Your task to perform on an android device: find photos in the google photos app Image 0: 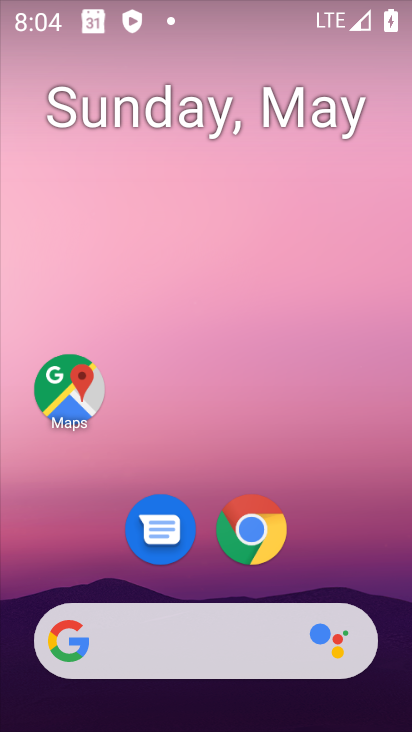
Step 0: drag from (186, 584) to (261, 55)
Your task to perform on an android device: find photos in the google photos app Image 1: 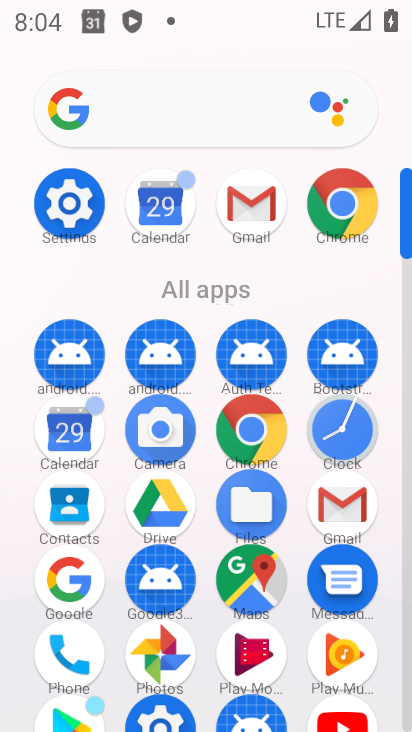
Step 1: click (148, 651)
Your task to perform on an android device: find photos in the google photos app Image 2: 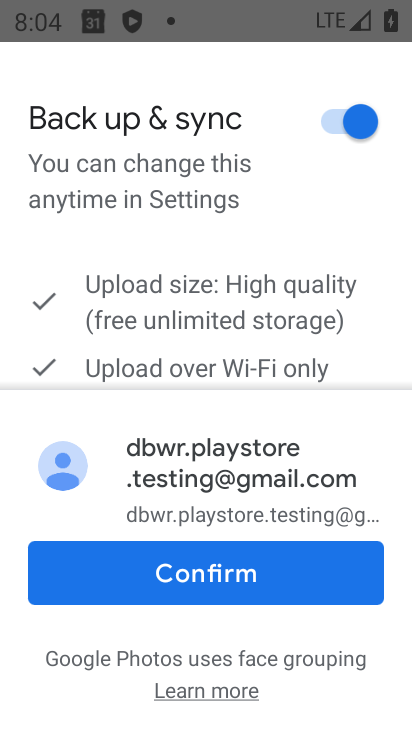
Step 2: click (204, 580)
Your task to perform on an android device: find photos in the google photos app Image 3: 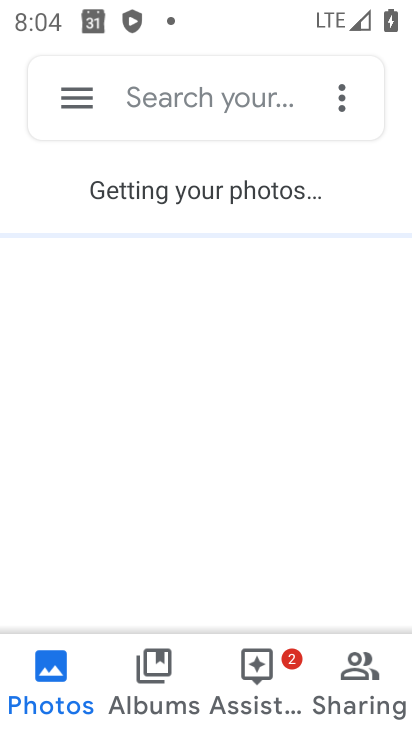
Step 3: click (41, 666)
Your task to perform on an android device: find photos in the google photos app Image 4: 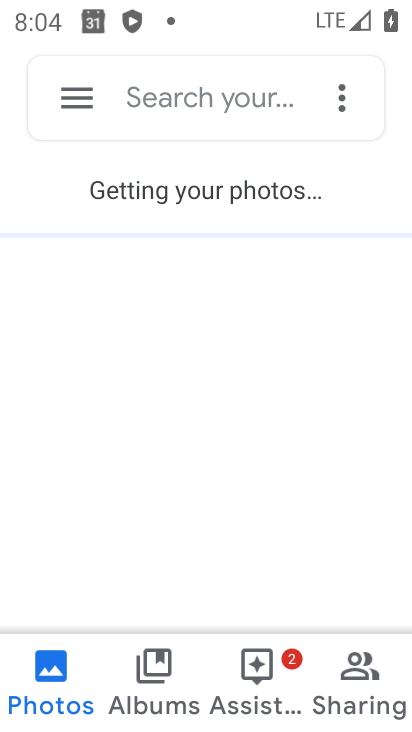
Step 4: task complete